Your task to perform on an android device: open app "Microsoft Outlook" (install if not already installed) Image 0: 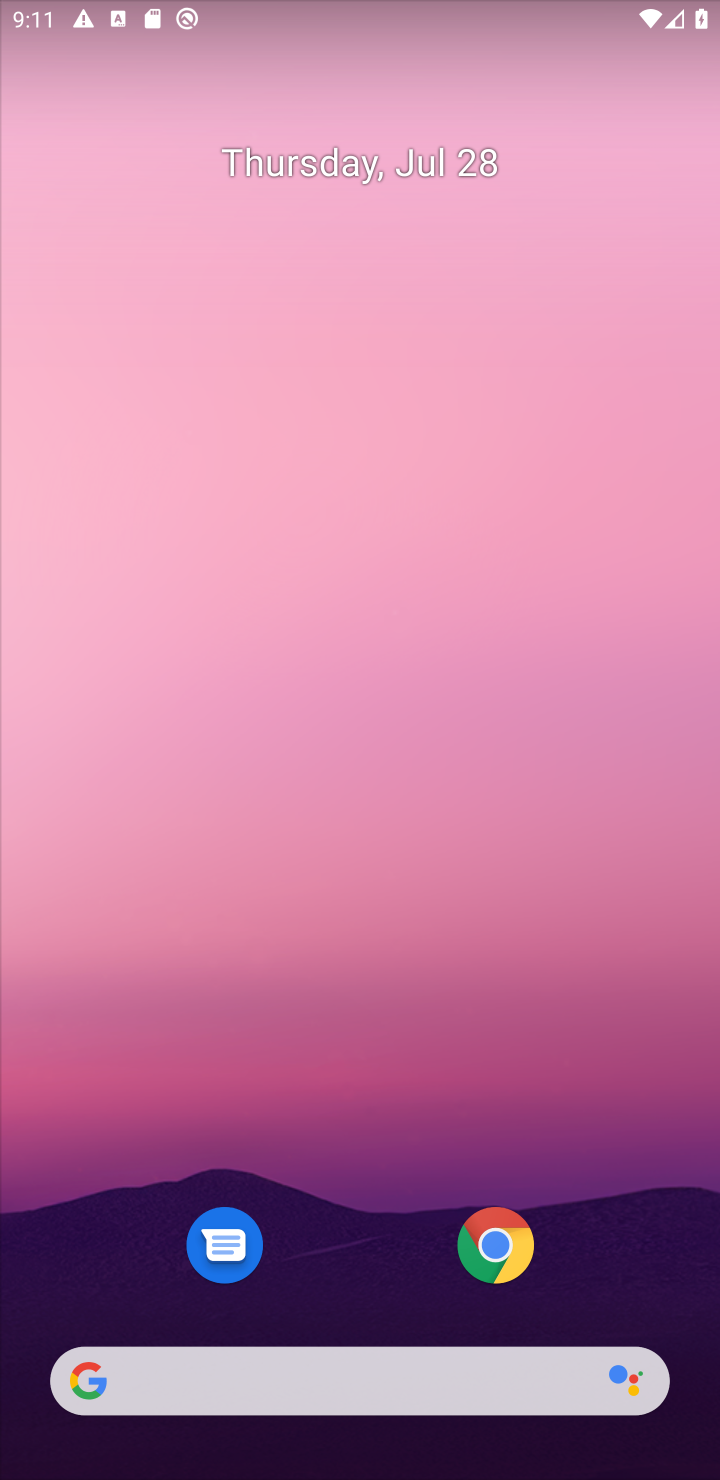
Step 0: drag from (401, 1288) to (474, 106)
Your task to perform on an android device: open app "Microsoft Outlook" (install if not already installed) Image 1: 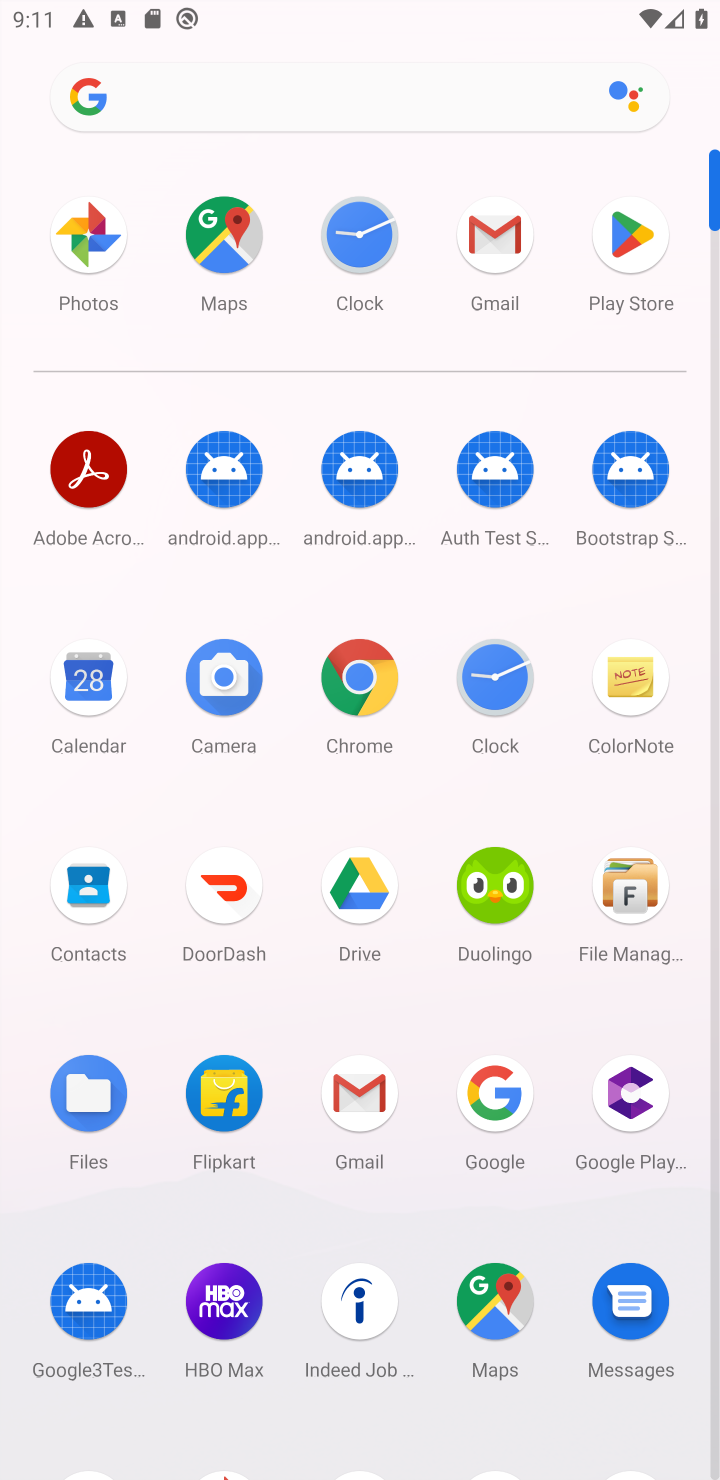
Step 1: click (622, 217)
Your task to perform on an android device: open app "Microsoft Outlook" (install if not already installed) Image 2: 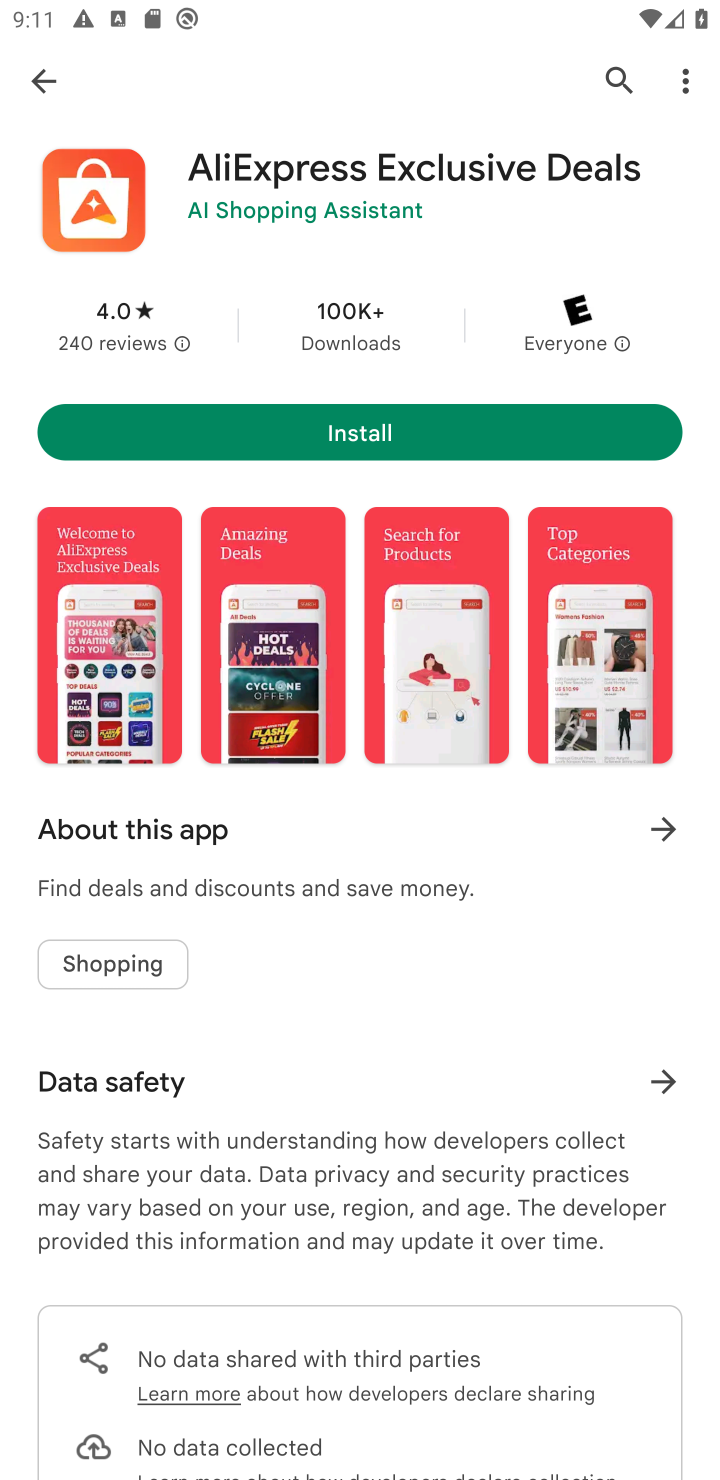
Step 2: click (612, 83)
Your task to perform on an android device: open app "Microsoft Outlook" (install if not already installed) Image 3: 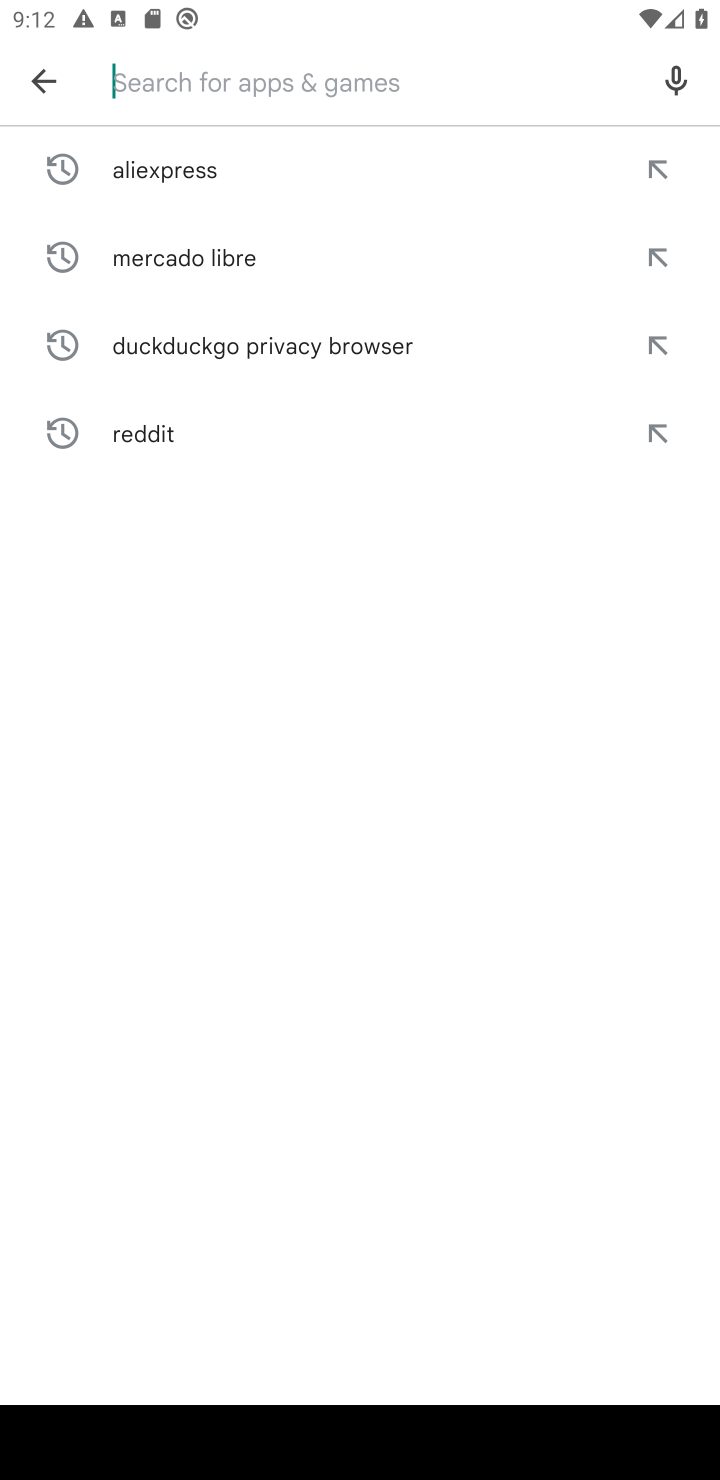
Step 3: type "microsoft outlook"
Your task to perform on an android device: open app "Microsoft Outlook" (install if not already installed) Image 4: 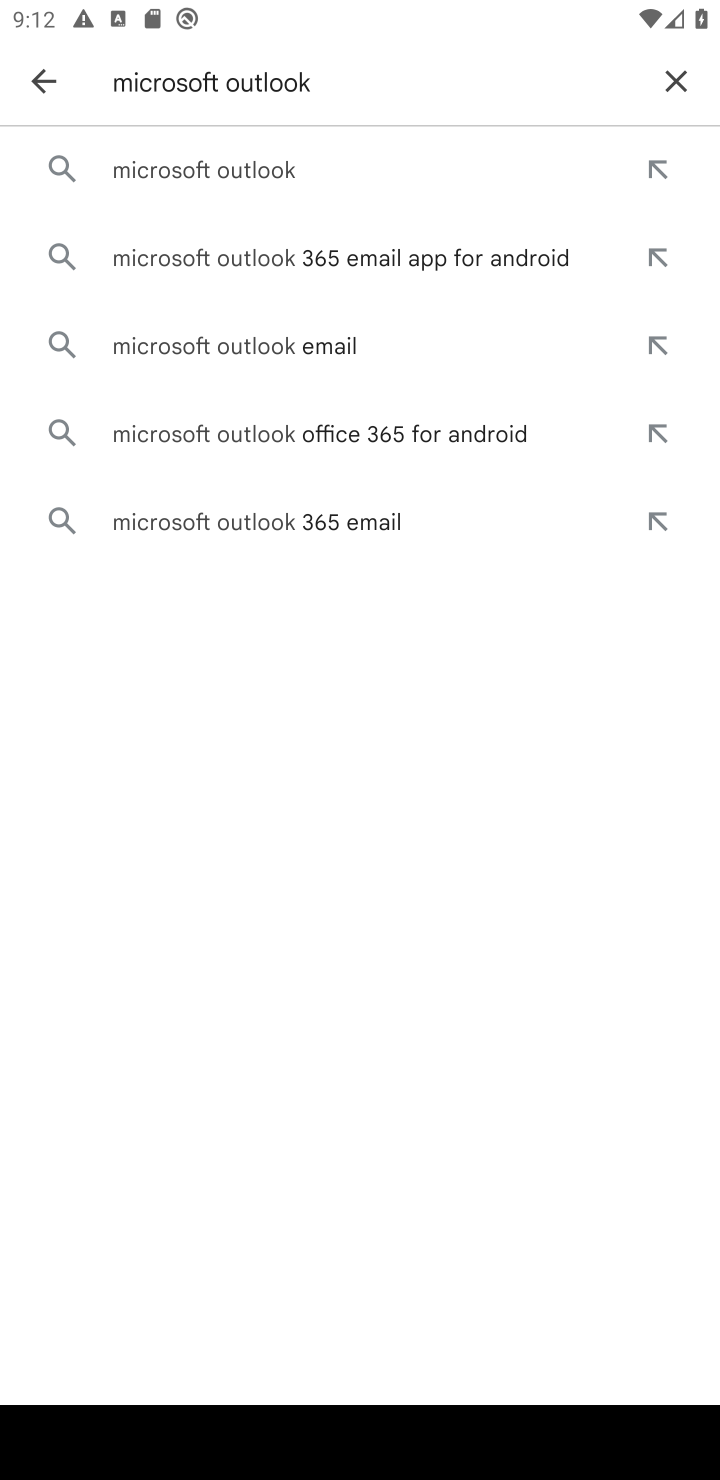
Step 4: click (390, 141)
Your task to perform on an android device: open app "Microsoft Outlook" (install if not already installed) Image 5: 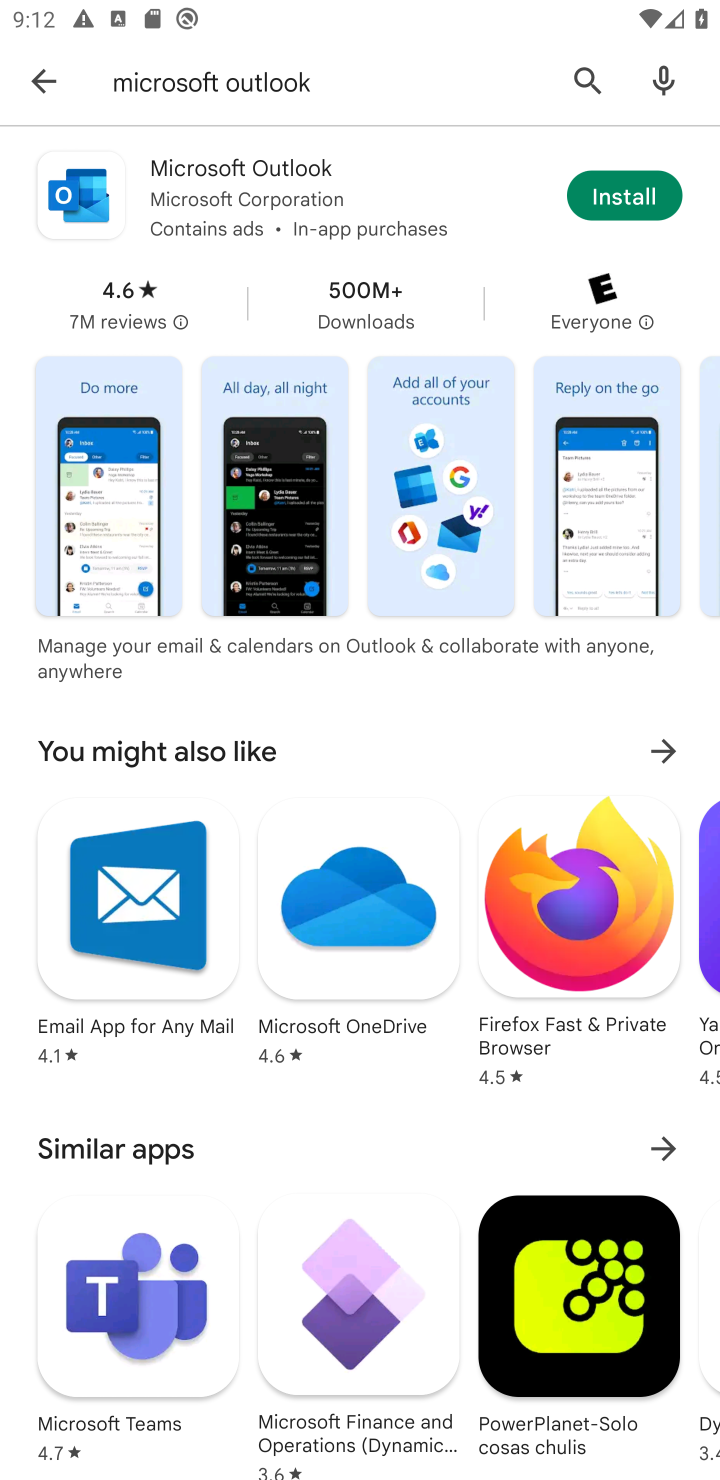
Step 5: click (282, 157)
Your task to perform on an android device: open app "Microsoft Outlook" (install if not already installed) Image 6: 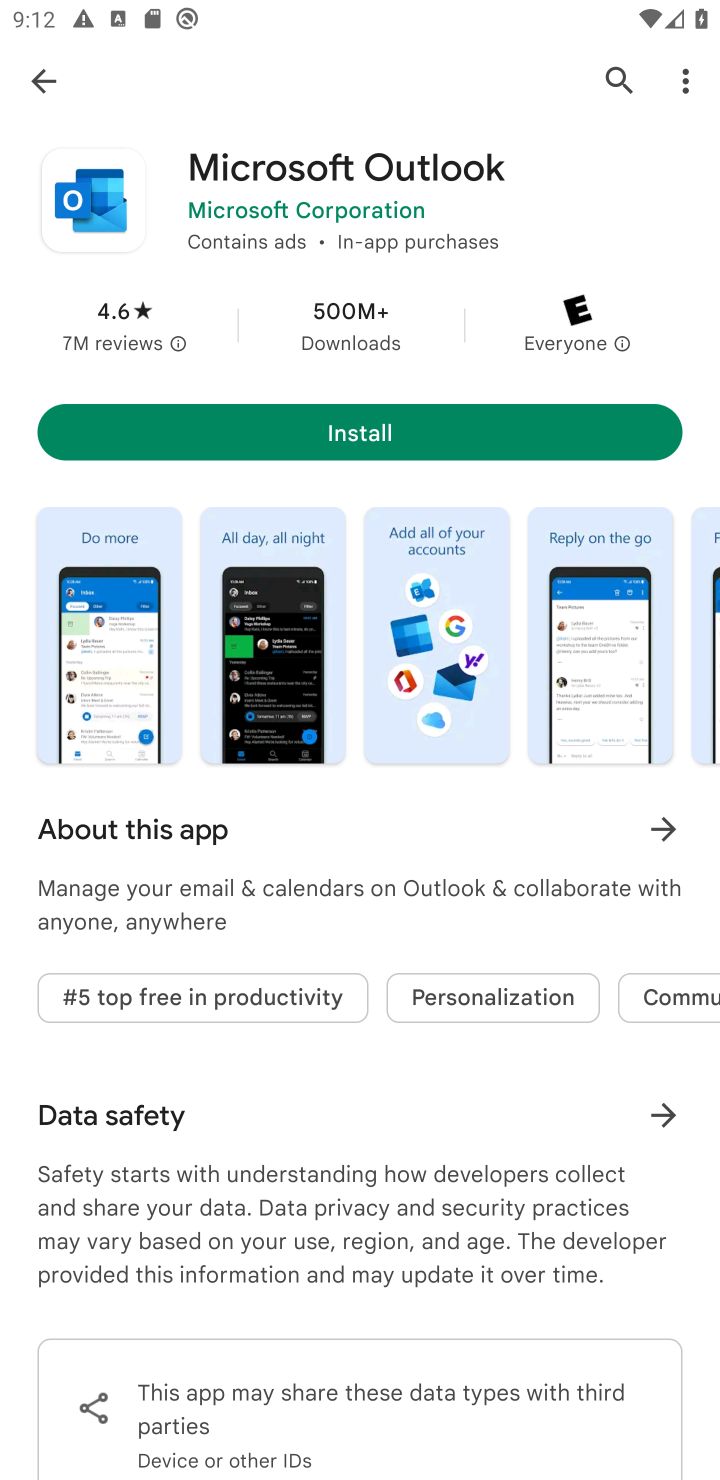
Step 6: click (374, 418)
Your task to perform on an android device: open app "Microsoft Outlook" (install if not already installed) Image 7: 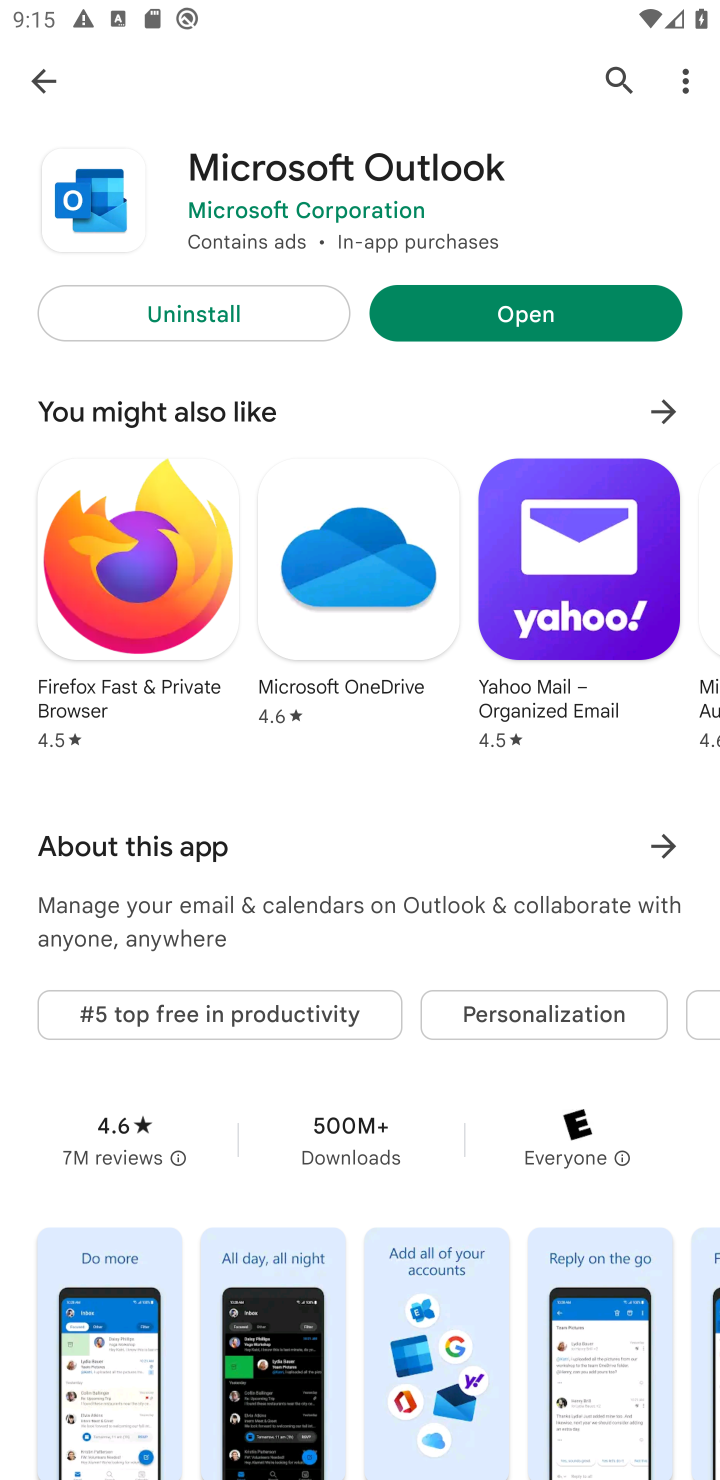
Step 7: click (590, 315)
Your task to perform on an android device: open app "Microsoft Outlook" (install if not already installed) Image 8: 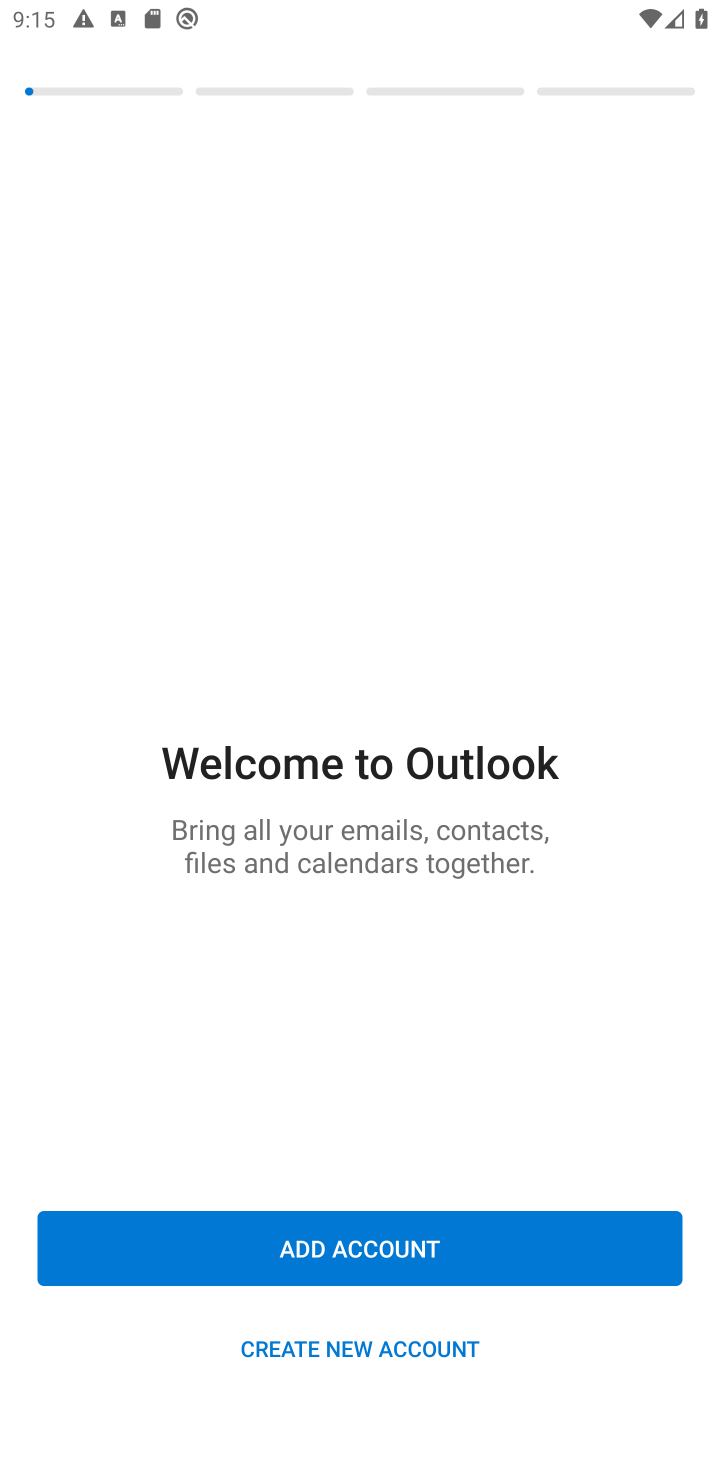
Step 8: task complete